Your task to perform on an android device: change alarm snooze length Image 0: 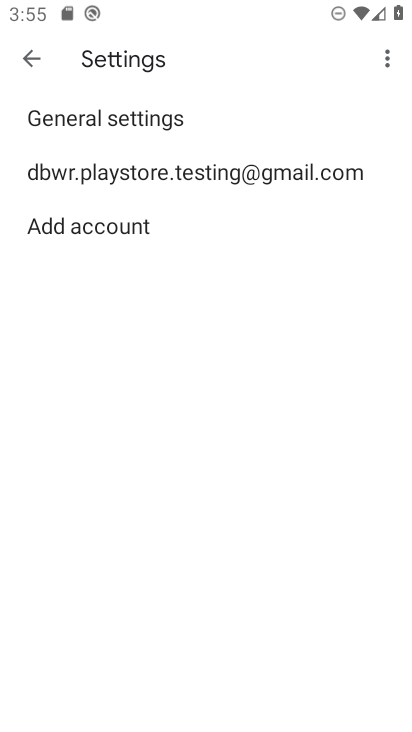
Step 0: press back button
Your task to perform on an android device: change alarm snooze length Image 1: 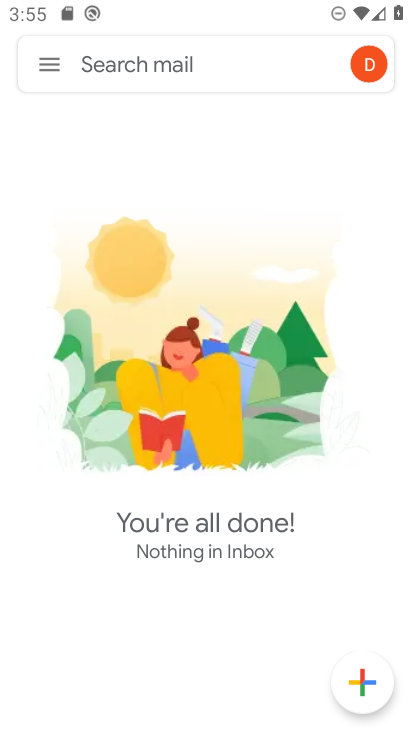
Step 1: press home button
Your task to perform on an android device: change alarm snooze length Image 2: 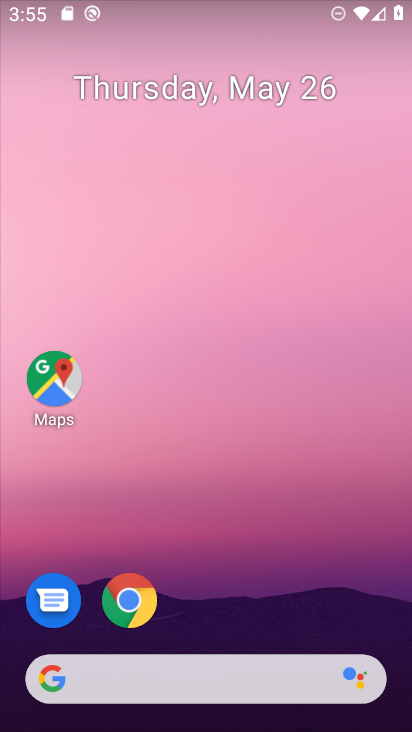
Step 2: drag from (238, 581) to (213, 87)
Your task to perform on an android device: change alarm snooze length Image 3: 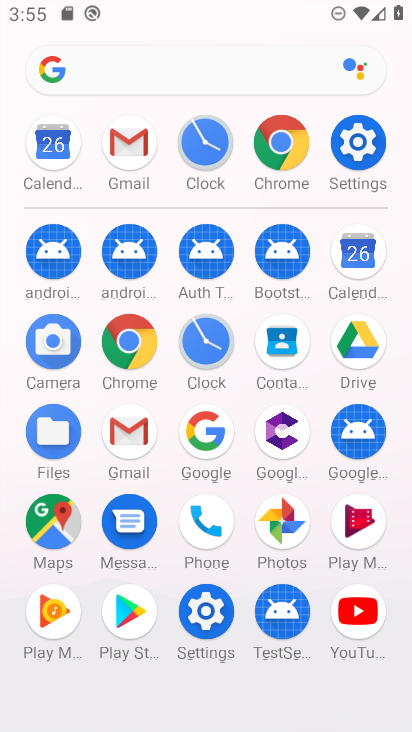
Step 3: drag from (3, 493) to (10, 281)
Your task to perform on an android device: change alarm snooze length Image 4: 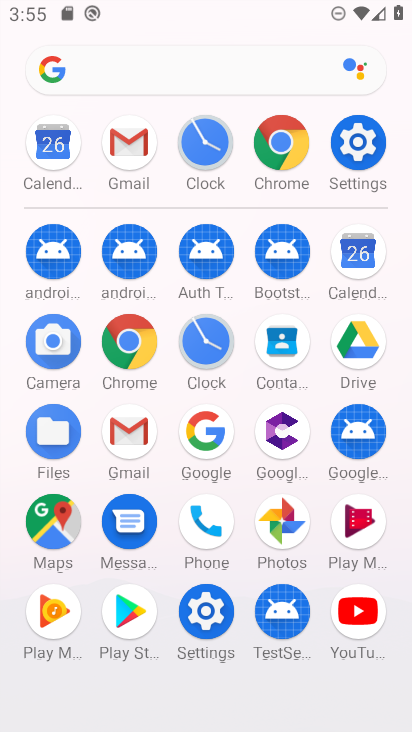
Step 4: click (210, 340)
Your task to perform on an android device: change alarm snooze length Image 5: 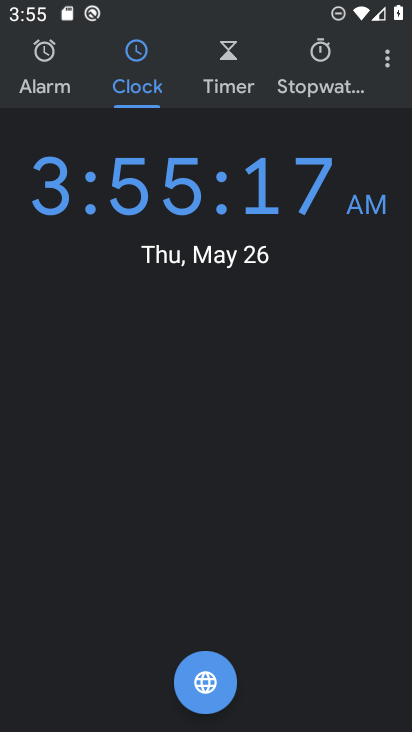
Step 5: drag from (383, 41) to (331, 109)
Your task to perform on an android device: change alarm snooze length Image 6: 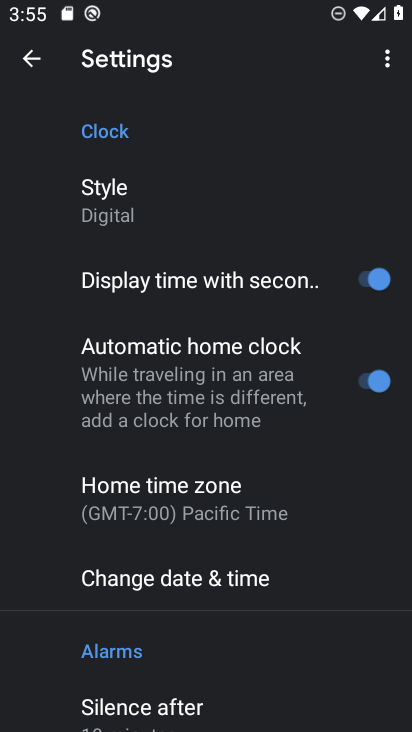
Step 6: drag from (268, 567) to (234, 185)
Your task to perform on an android device: change alarm snooze length Image 7: 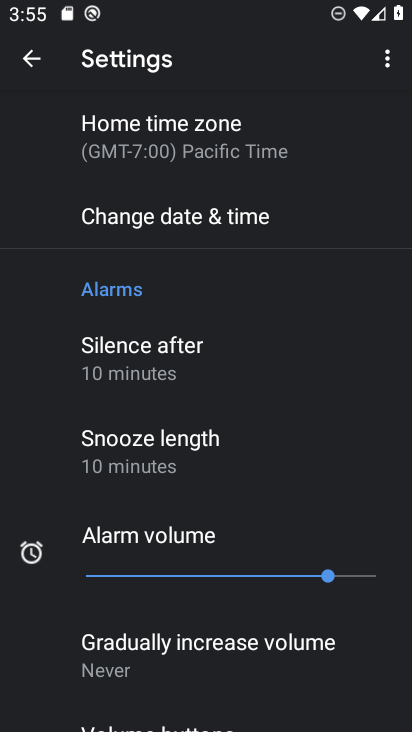
Step 7: click (182, 451)
Your task to perform on an android device: change alarm snooze length Image 8: 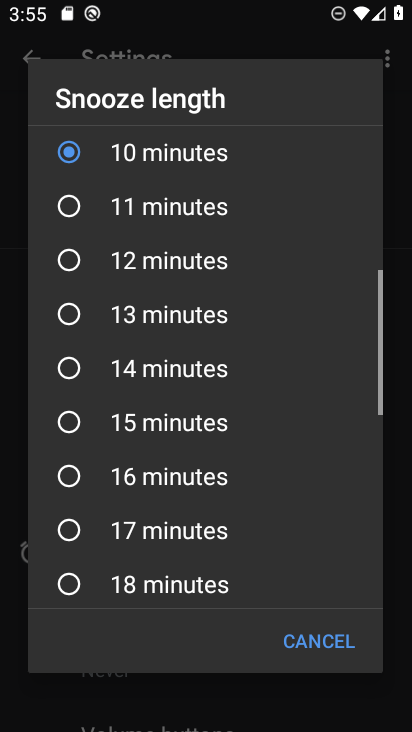
Step 8: click (157, 198)
Your task to perform on an android device: change alarm snooze length Image 9: 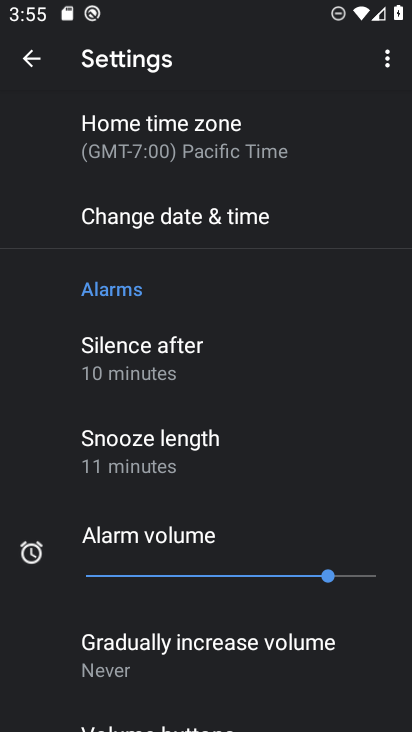
Step 9: task complete